Your task to perform on an android device: Open calendar and show me the fourth week of next month Image 0: 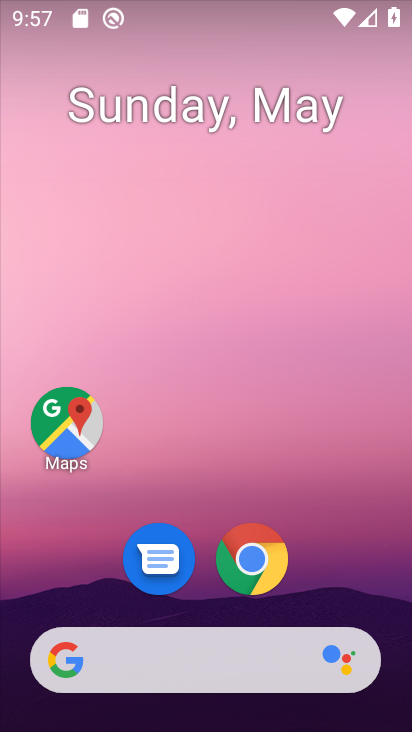
Step 0: drag from (217, 623) to (206, 3)
Your task to perform on an android device: Open calendar and show me the fourth week of next month Image 1: 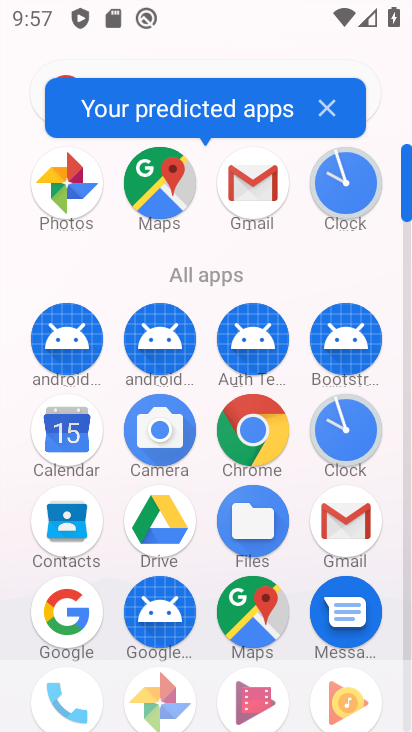
Step 1: click (74, 446)
Your task to perform on an android device: Open calendar and show me the fourth week of next month Image 2: 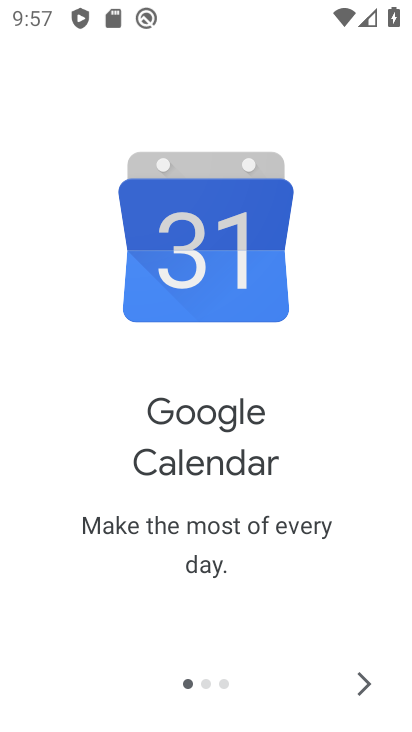
Step 2: click (370, 684)
Your task to perform on an android device: Open calendar and show me the fourth week of next month Image 3: 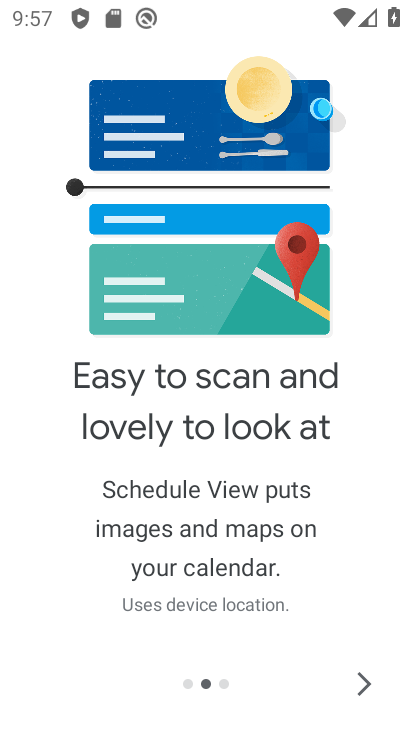
Step 3: click (366, 680)
Your task to perform on an android device: Open calendar and show me the fourth week of next month Image 4: 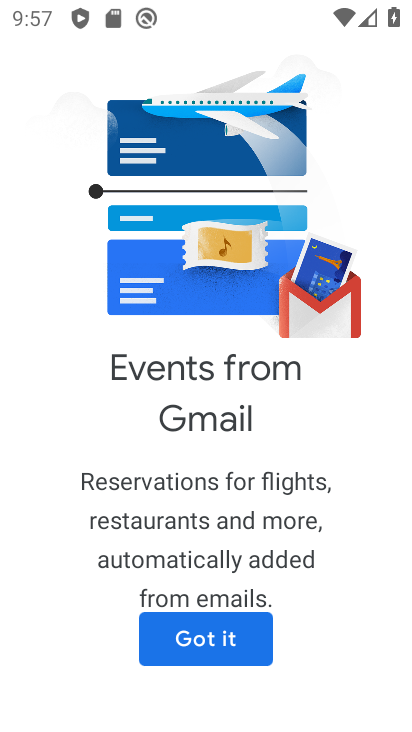
Step 4: click (206, 648)
Your task to perform on an android device: Open calendar and show me the fourth week of next month Image 5: 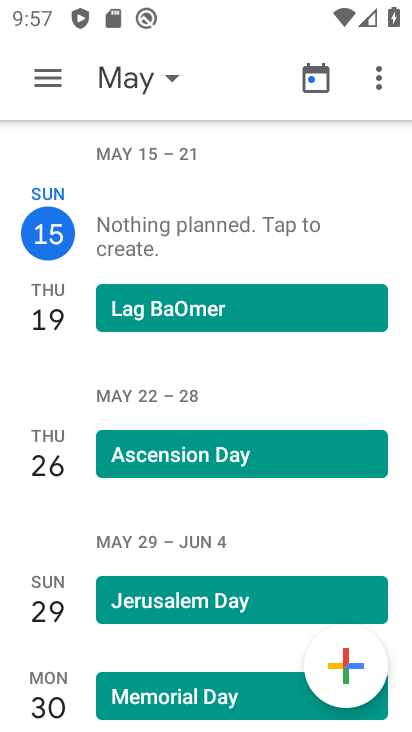
Step 5: click (42, 90)
Your task to perform on an android device: Open calendar and show me the fourth week of next month Image 6: 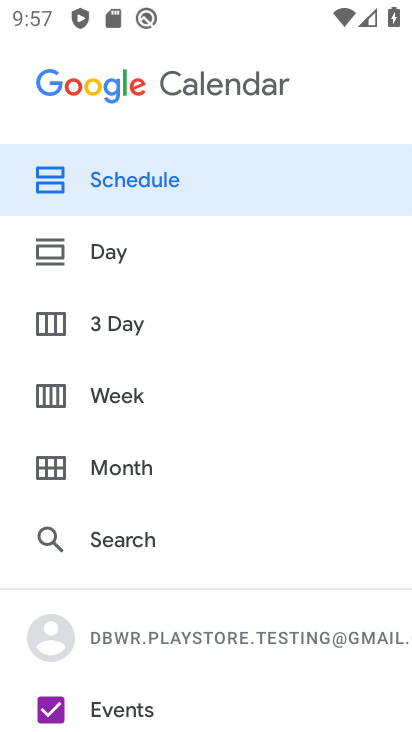
Step 6: click (135, 403)
Your task to perform on an android device: Open calendar and show me the fourth week of next month Image 7: 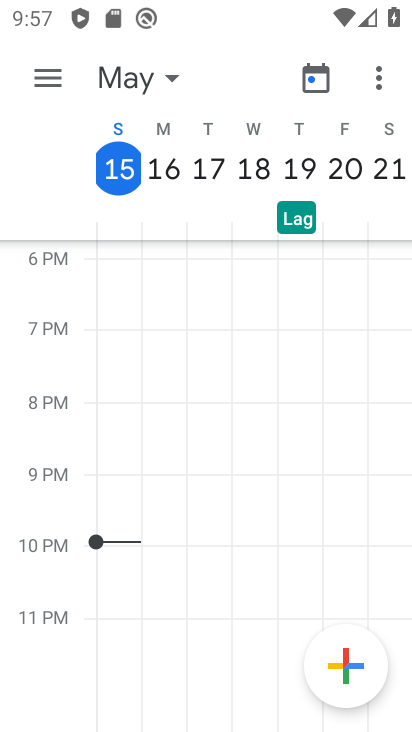
Step 7: task complete